Your task to perform on an android device: Open Maps and search for coffee Image 0: 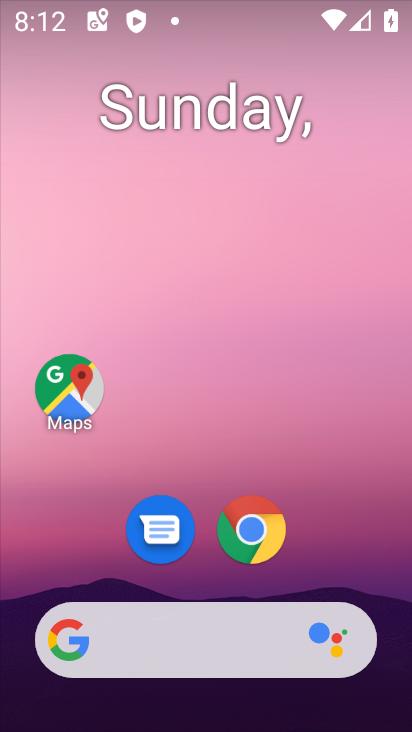
Step 0: drag from (340, 555) to (343, 138)
Your task to perform on an android device: Open Maps and search for coffee Image 1: 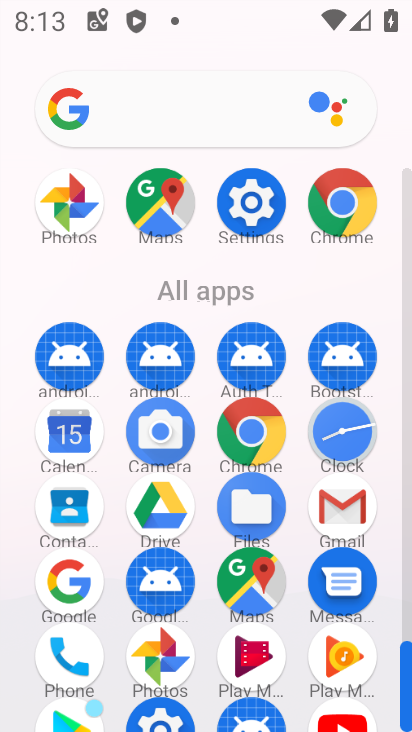
Step 1: click (246, 583)
Your task to perform on an android device: Open Maps and search for coffee Image 2: 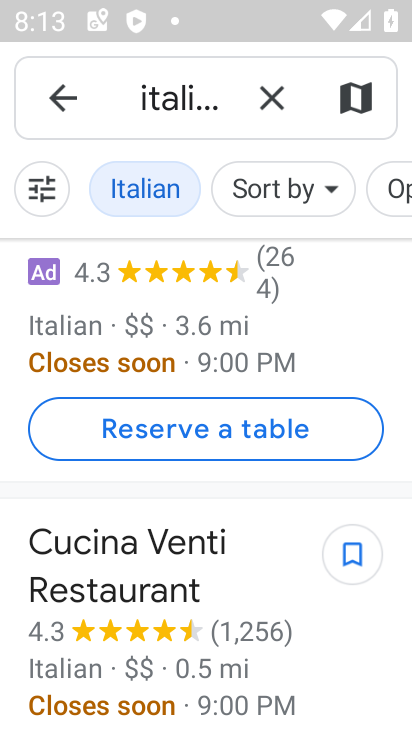
Step 2: click (277, 107)
Your task to perform on an android device: Open Maps and search for coffee Image 3: 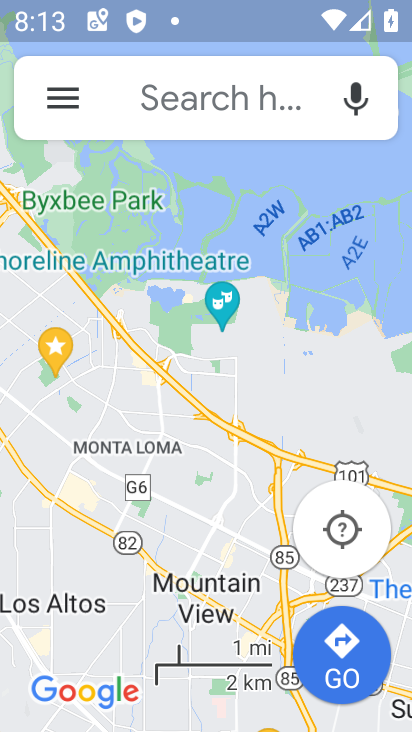
Step 3: click (188, 103)
Your task to perform on an android device: Open Maps and search for coffee Image 4: 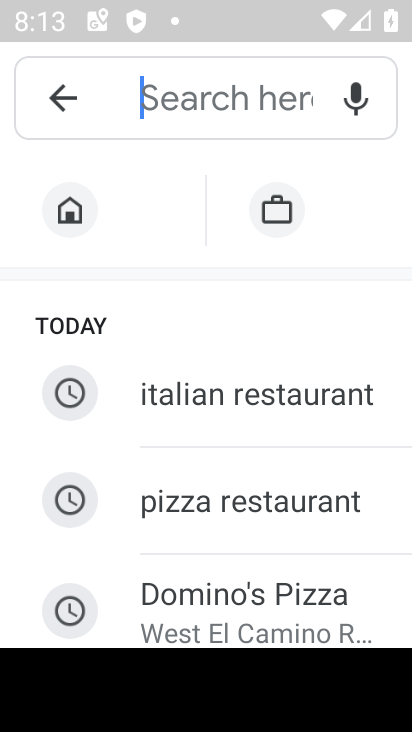
Step 4: type "coffee"
Your task to perform on an android device: Open Maps and search for coffee Image 5: 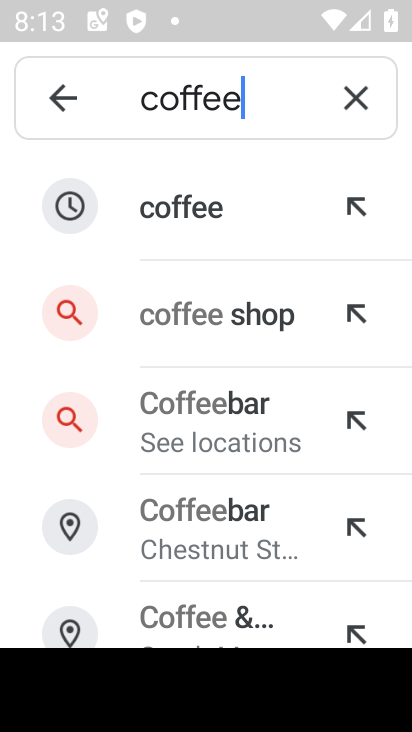
Step 5: click (214, 230)
Your task to perform on an android device: Open Maps and search for coffee Image 6: 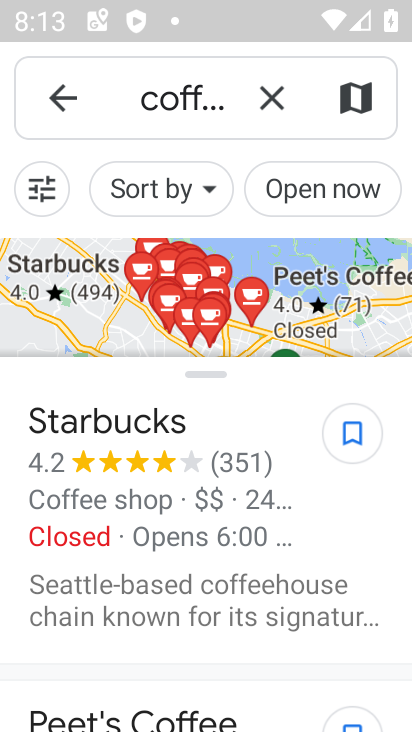
Step 6: task complete